Your task to perform on an android device: Open maps Image 0: 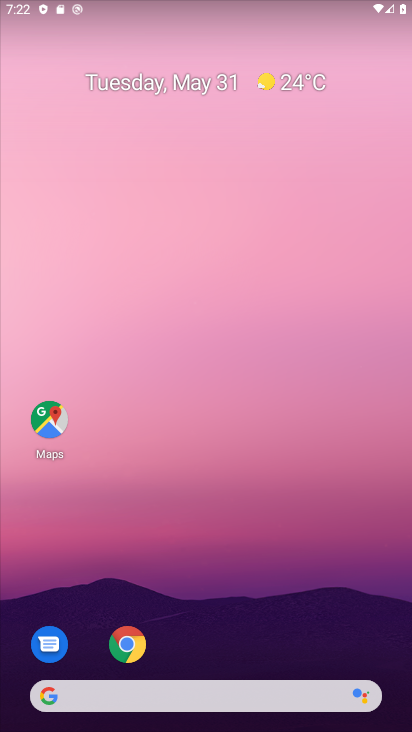
Step 0: drag from (378, 595) to (371, 152)
Your task to perform on an android device: Open maps Image 1: 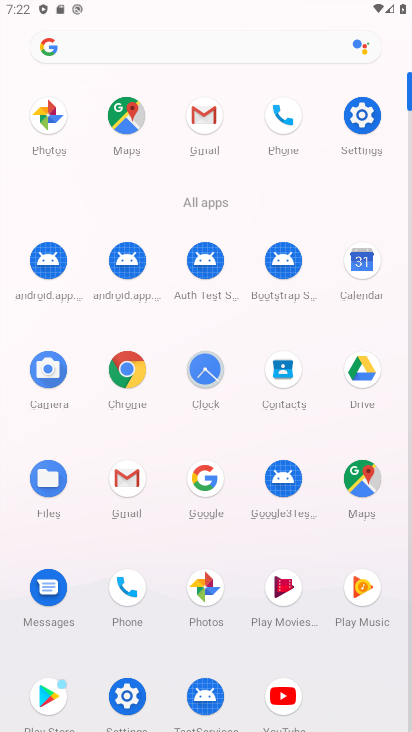
Step 1: click (362, 489)
Your task to perform on an android device: Open maps Image 2: 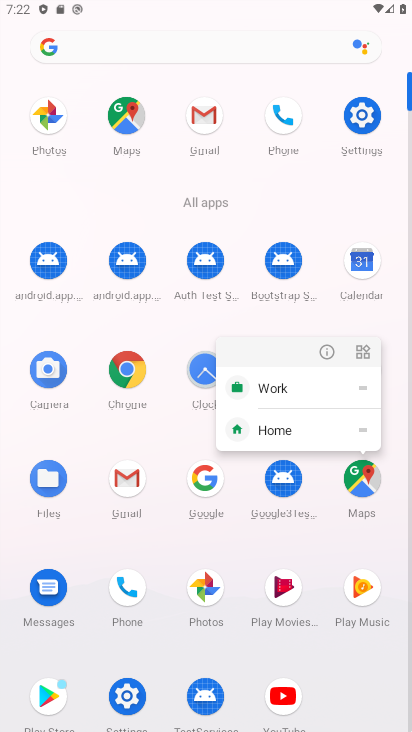
Step 2: click (363, 489)
Your task to perform on an android device: Open maps Image 3: 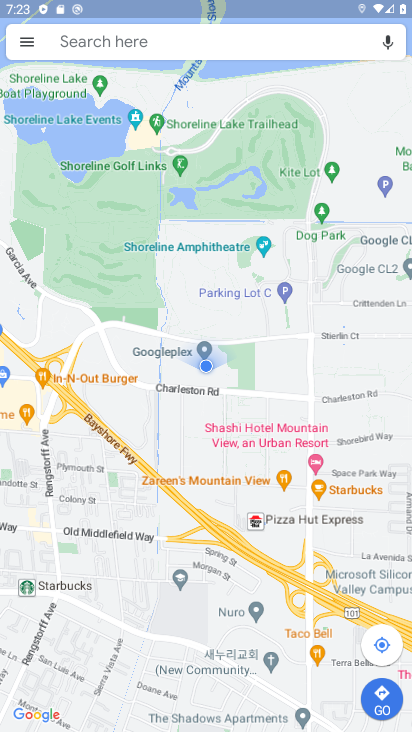
Step 3: task complete